Your task to perform on an android device: turn off location history Image 0: 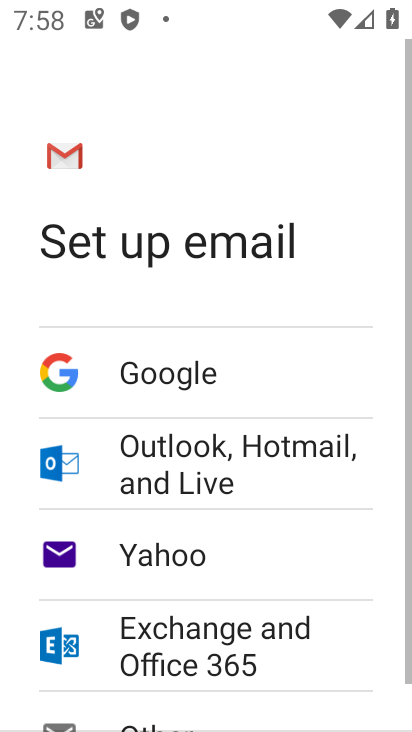
Step 0: drag from (198, 533) to (239, 163)
Your task to perform on an android device: turn off location history Image 1: 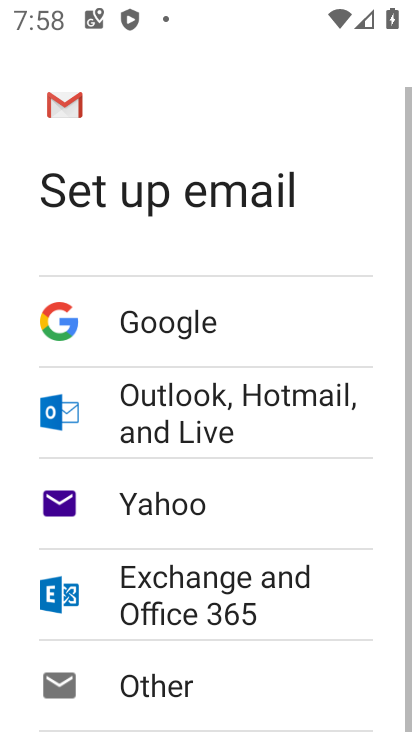
Step 1: press home button
Your task to perform on an android device: turn off location history Image 2: 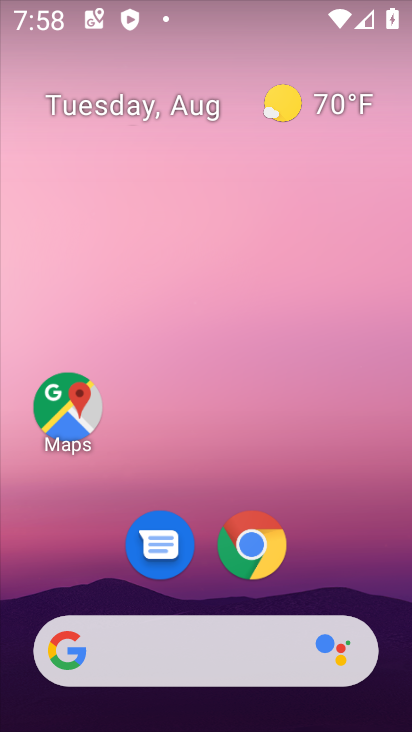
Step 2: drag from (246, 585) to (258, 124)
Your task to perform on an android device: turn off location history Image 3: 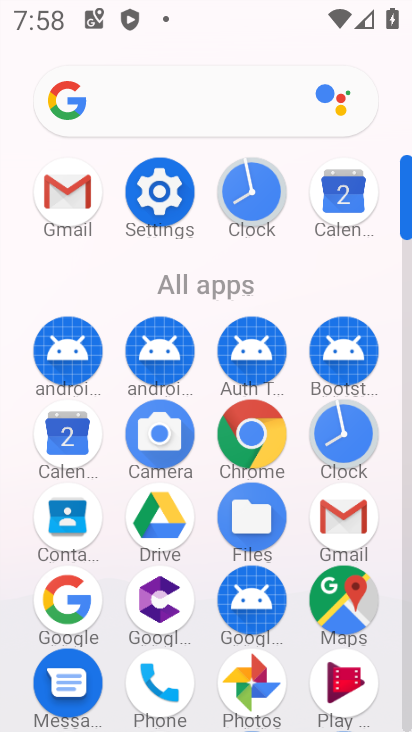
Step 3: click (145, 211)
Your task to perform on an android device: turn off location history Image 4: 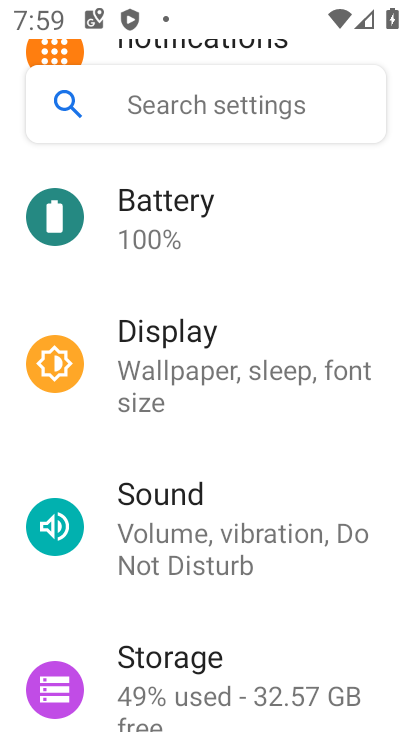
Step 4: drag from (163, 579) to (193, 291)
Your task to perform on an android device: turn off location history Image 5: 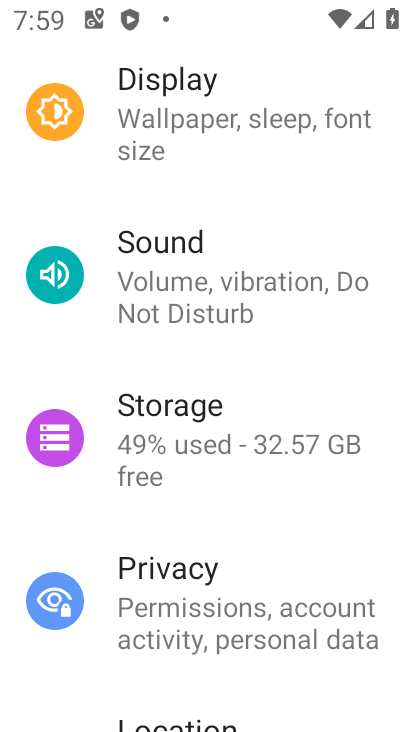
Step 5: drag from (180, 609) to (225, 310)
Your task to perform on an android device: turn off location history Image 6: 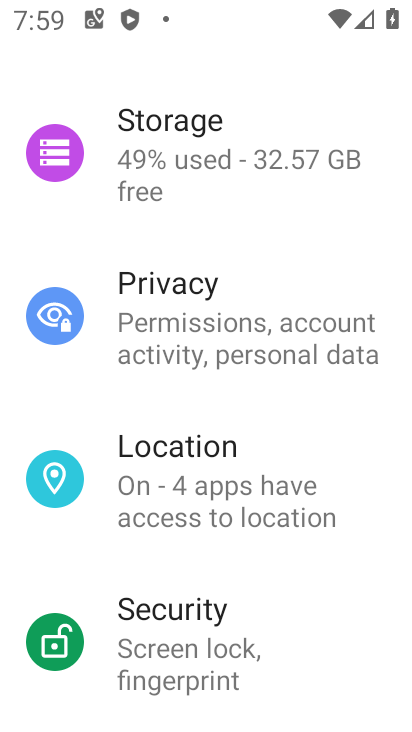
Step 6: click (215, 476)
Your task to perform on an android device: turn off location history Image 7: 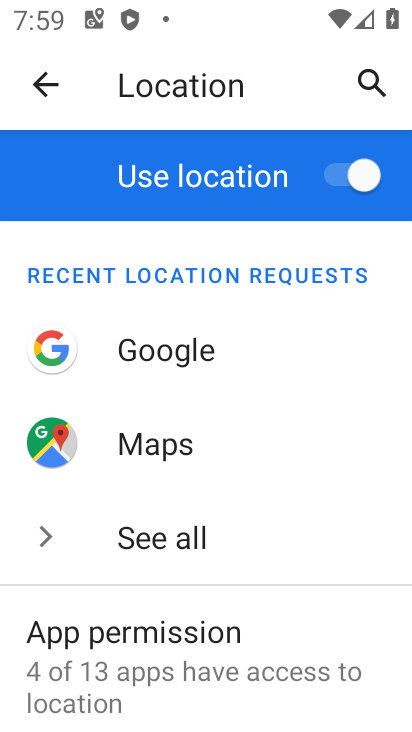
Step 7: drag from (211, 589) to (239, 208)
Your task to perform on an android device: turn off location history Image 8: 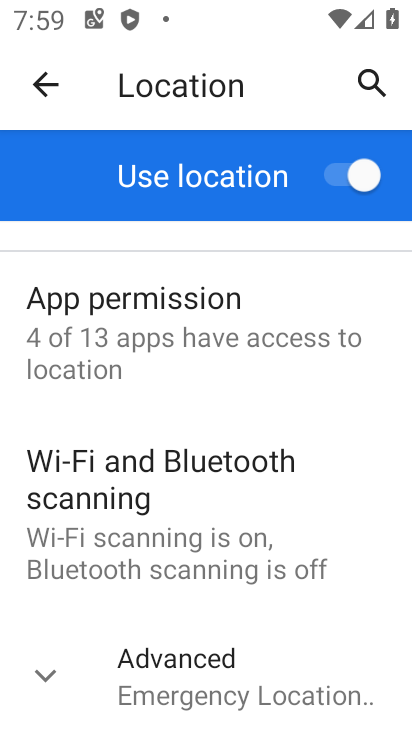
Step 8: drag from (203, 528) to (232, 277)
Your task to perform on an android device: turn off location history Image 9: 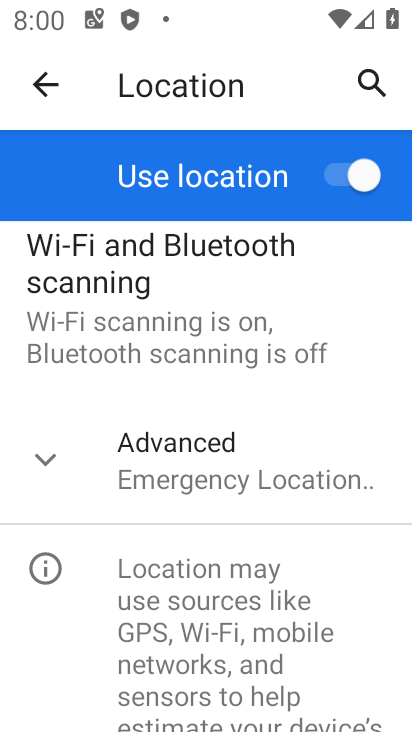
Step 9: click (216, 485)
Your task to perform on an android device: turn off location history Image 10: 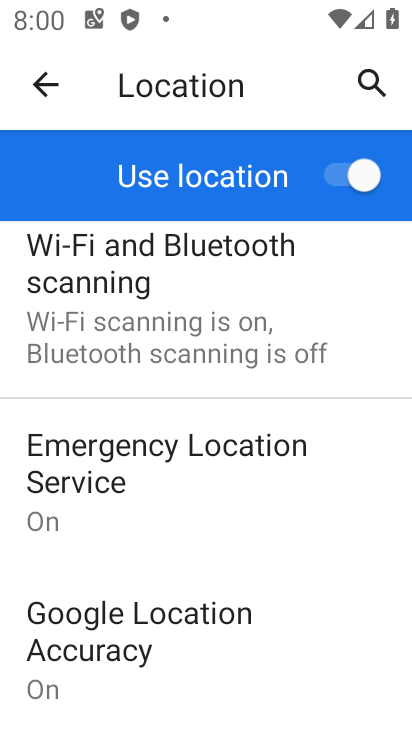
Step 10: drag from (209, 564) to (261, 252)
Your task to perform on an android device: turn off location history Image 11: 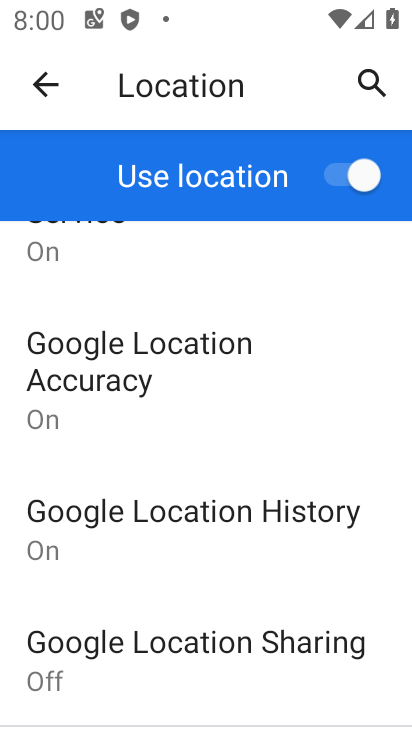
Step 11: click (237, 525)
Your task to perform on an android device: turn off location history Image 12: 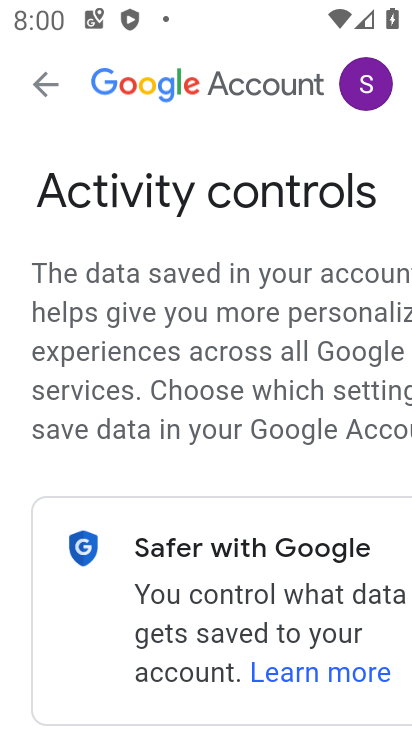
Step 12: drag from (193, 559) to (192, 236)
Your task to perform on an android device: turn off location history Image 13: 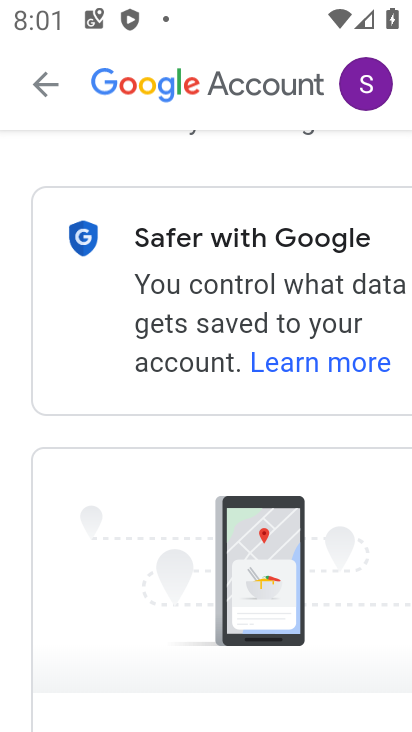
Step 13: drag from (174, 573) to (66, 143)
Your task to perform on an android device: turn off location history Image 14: 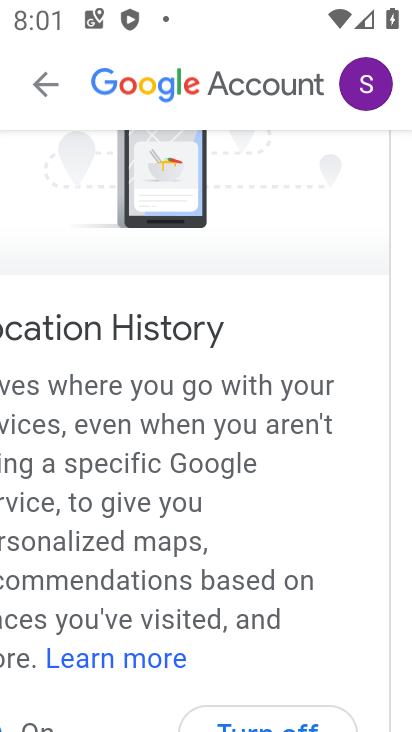
Step 14: drag from (198, 573) to (252, 170)
Your task to perform on an android device: turn off location history Image 15: 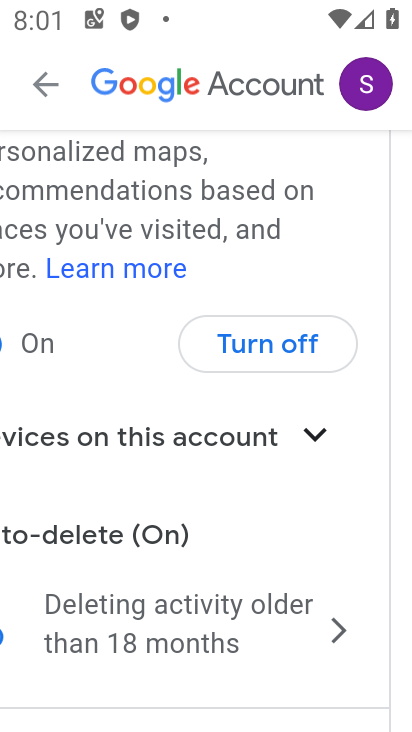
Step 15: click (277, 340)
Your task to perform on an android device: turn off location history Image 16: 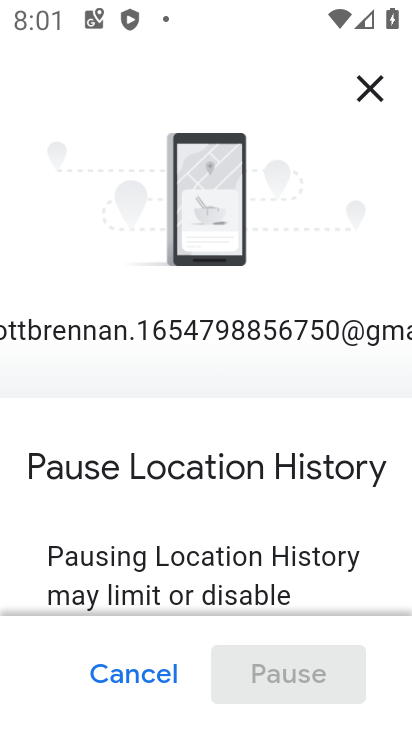
Step 16: drag from (259, 491) to (259, 2)
Your task to perform on an android device: turn off location history Image 17: 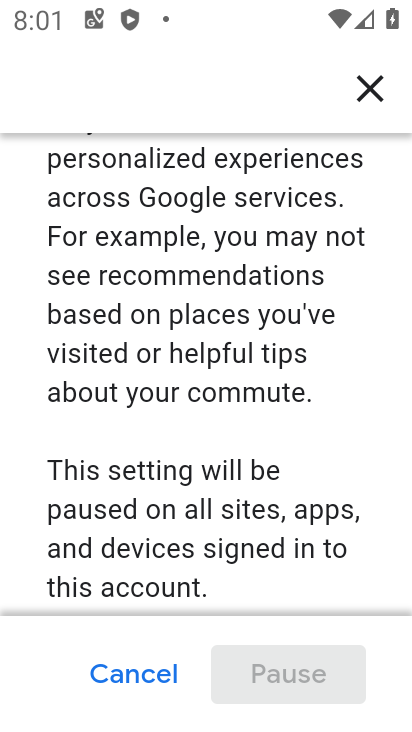
Step 17: drag from (230, 478) to (239, 41)
Your task to perform on an android device: turn off location history Image 18: 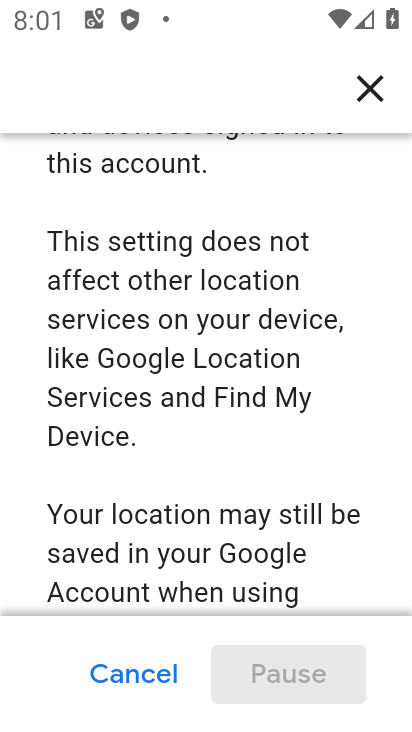
Step 18: drag from (263, 437) to (286, 24)
Your task to perform on an android device: turn off location history Image 19: 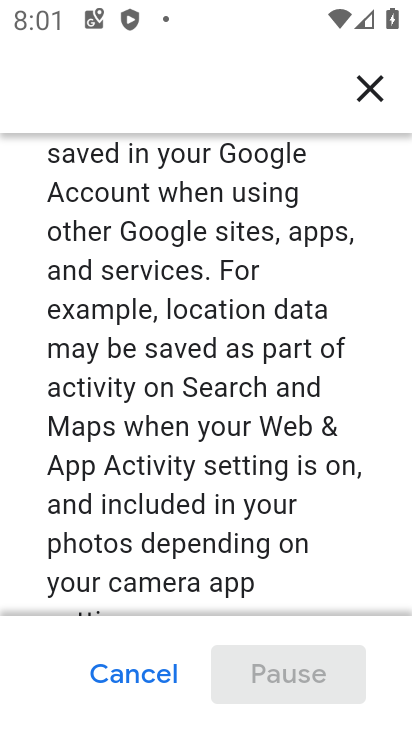
Step 19: drag from (259, 524) to (328, 1)
Your task to perform on an android device: turn off location history Image 20: 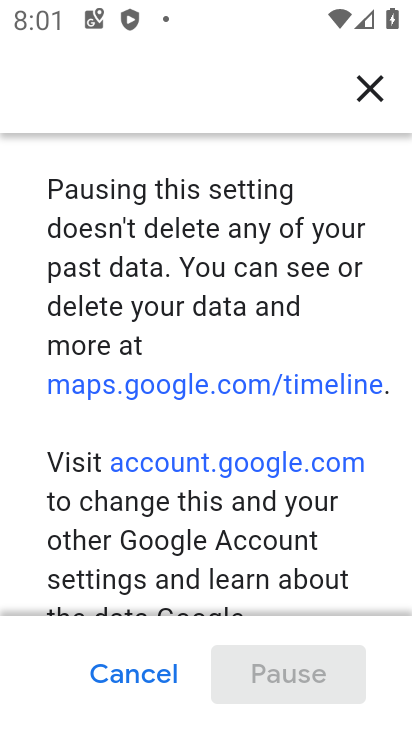
Step 20: drag from (308, 529) to (301, 33)
Your task to perform on an android device: turn off location history Image 21: 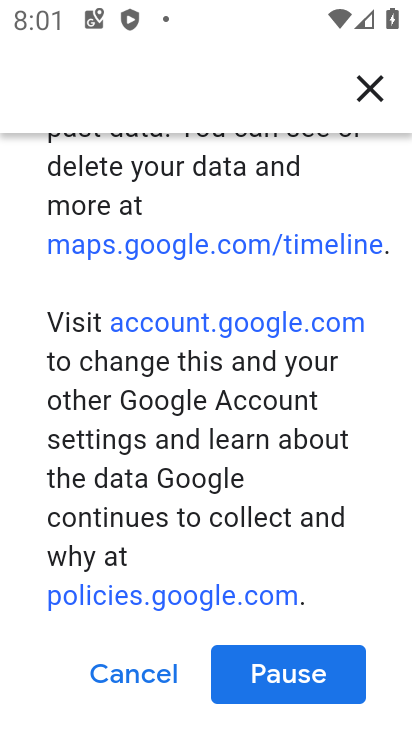
Step 21: click (306, 662)
Your task to perform on an android device: turn off location history Image 22: 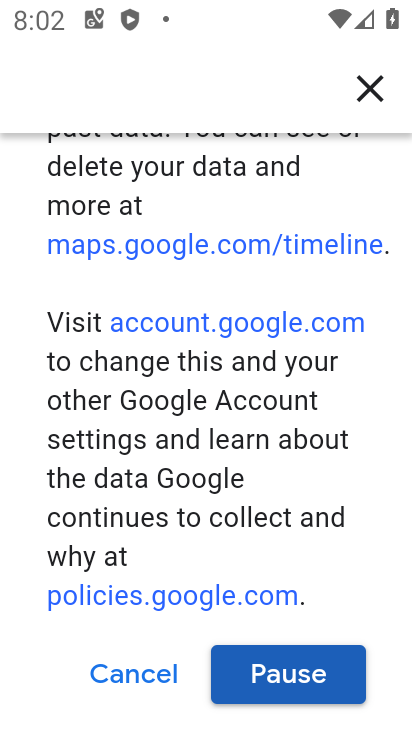
Step 22: click (303, 670)
Your task to perform on an android device: turn off location history Image 23: 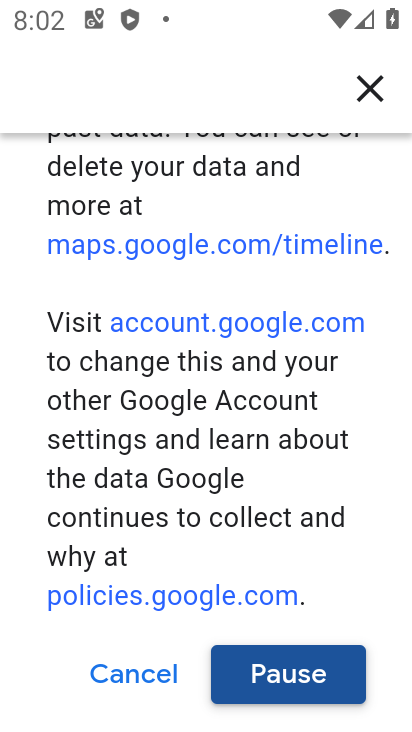
Step 23: task complete